Your task to perform on an android device: turn off sleep mode Image 0: 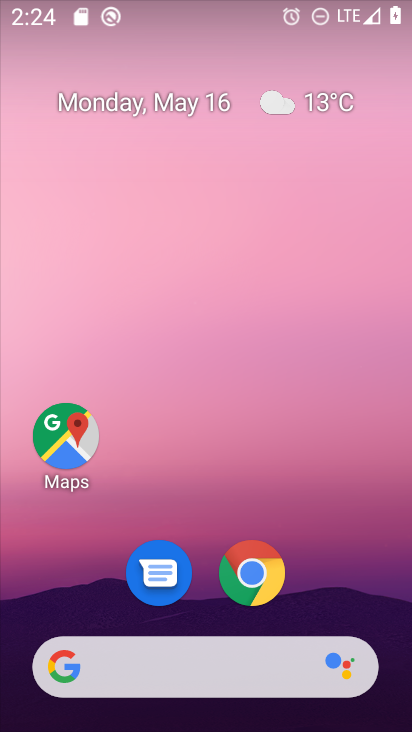
Step 0: drag from (173, 657) to (184, 136)
Your task to perform on an android device: turn off sleep mode Image 1: 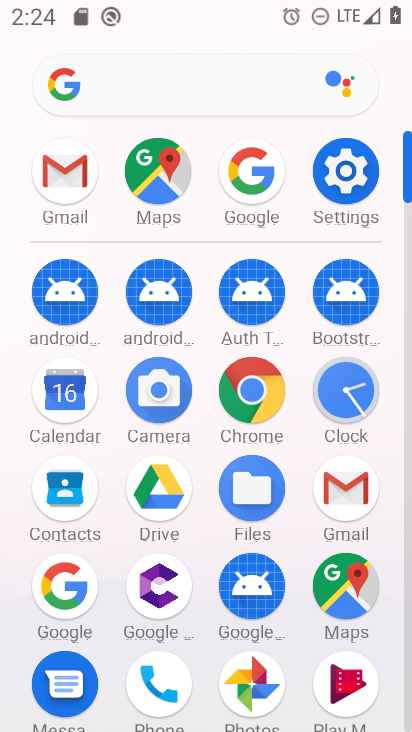
Step 1: click (329, 191)
Your task to perform on an android device: turn off sleep mode Image 2: 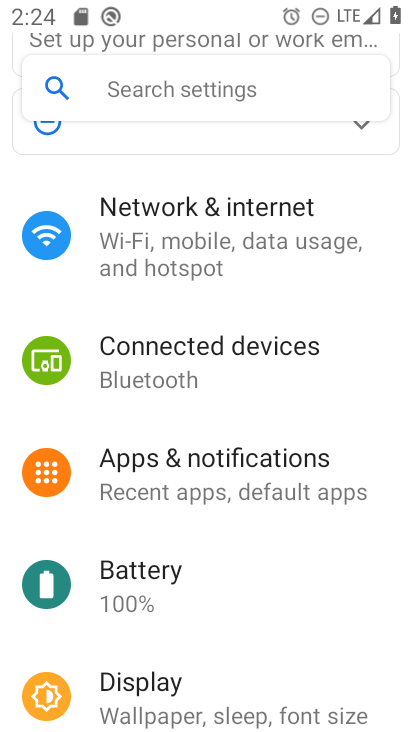
Step 2: click (156, 699)
Your task to perform on an android device: turn off sleep mode Image 3: 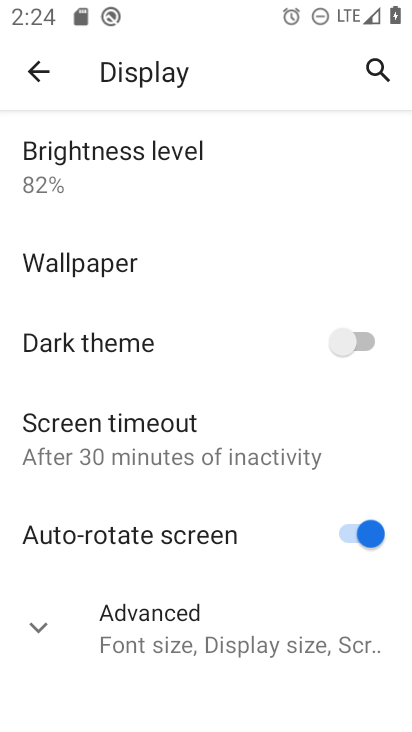
Step 3: drag from (251, 586) to (244, 212)
Your task to perform on an android device: turn off sleep mode Image 4: 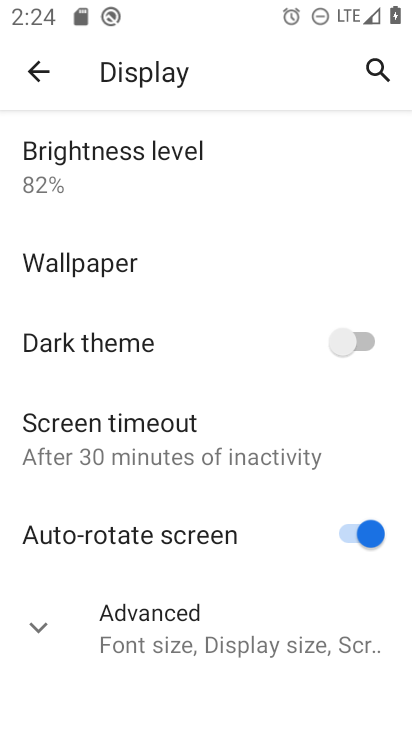
Step 4: click (156, 640)
Your task to perform on an android device: turn off sleep mode Image 5: 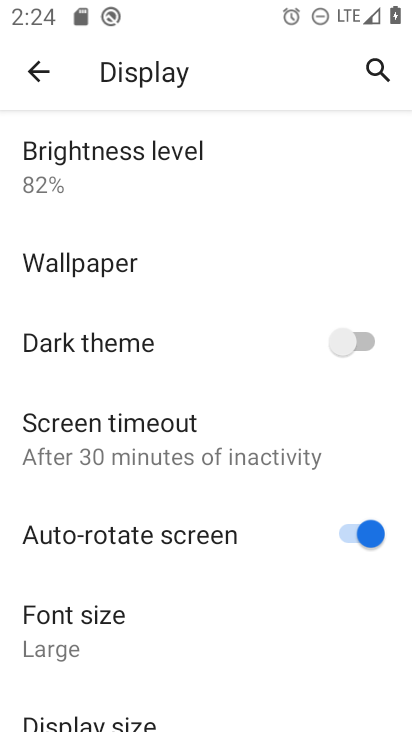
Step 5: task complete